Your task to perform on an android device: Open the stopwatch Image 0: 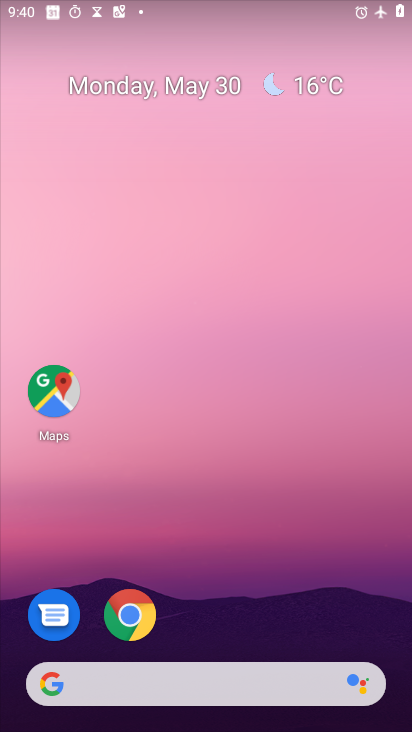
Step 0: drag from (289, 609) to (188, 0)
Your task to perform on an android device: Open the stopwatch Image 1: 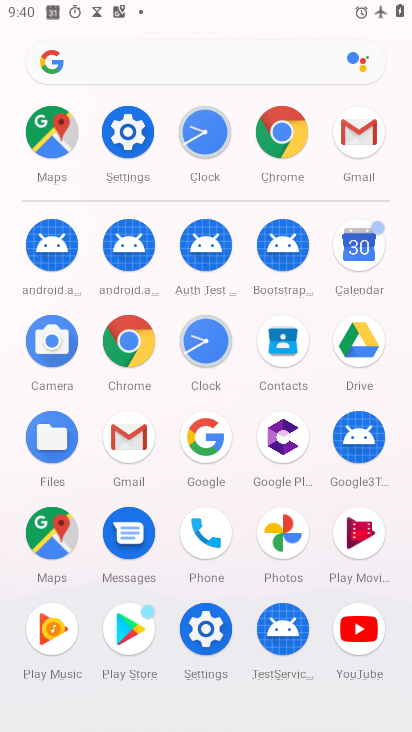
Step 1: click (204, 142)
Your task to perform on an android device: Open the stopwatch Image 2: 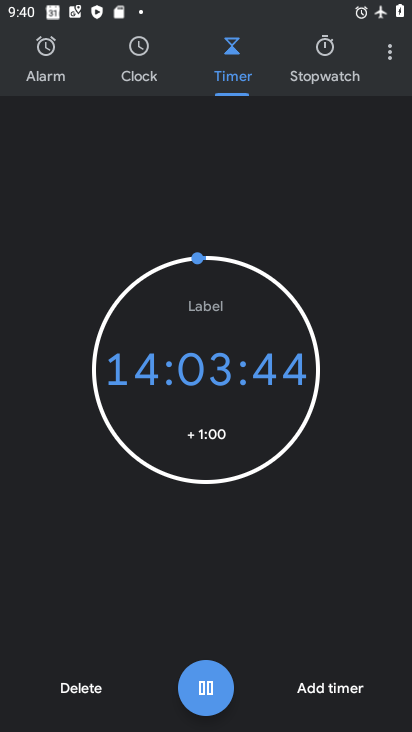
Step 2: click (317, 68)
Your task to perform on an android device: Open the stopwatch Image 3: 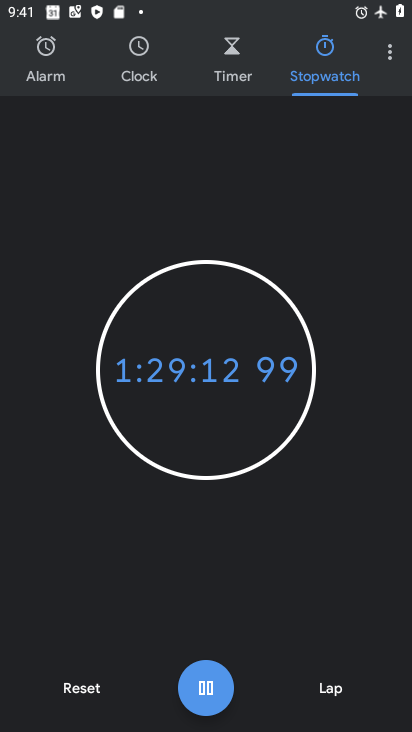
Step 3: task complete